Your task to perform on an android device: Open Youtube and go to "Your channel" Image 0: 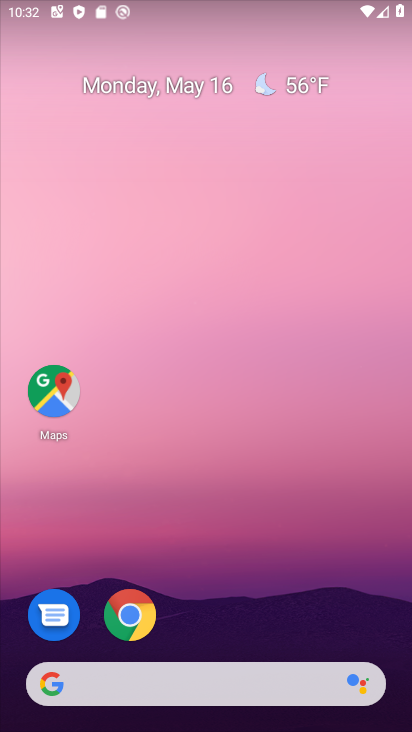
Step 0: drag from (172, 713) to (261, 136)
Your task to perform on an android device: Open Youtube and go to "Your channel" Image 1: 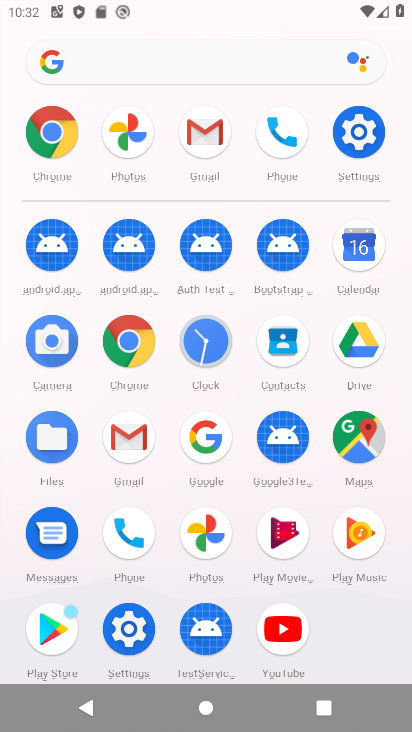
Step 1: click (262, 628)
Your task to perform on an android device: Open Youtube and go to "Your channel" Image 2: 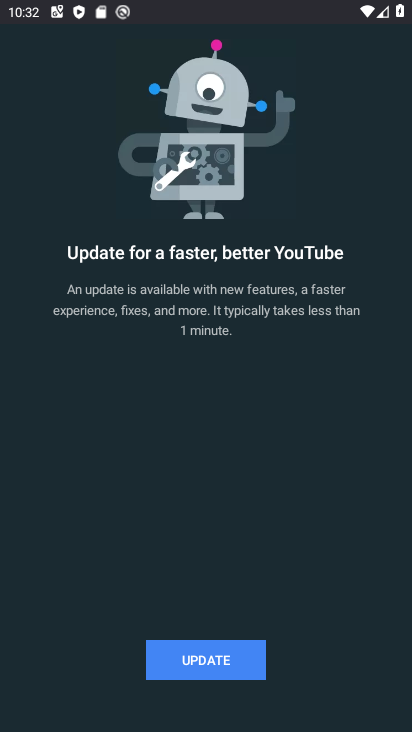
Step 2: click (220, 663)
Your task to perform on an android device: Open Youtube and go to "Your channel" Image 3: 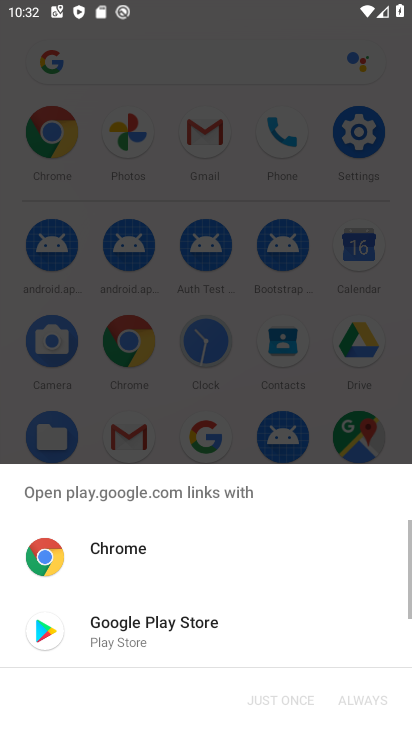
Step 3: click (160, 638)
Your task to perform on an android device: Open Youtube and go to "Your channel" Image 4: 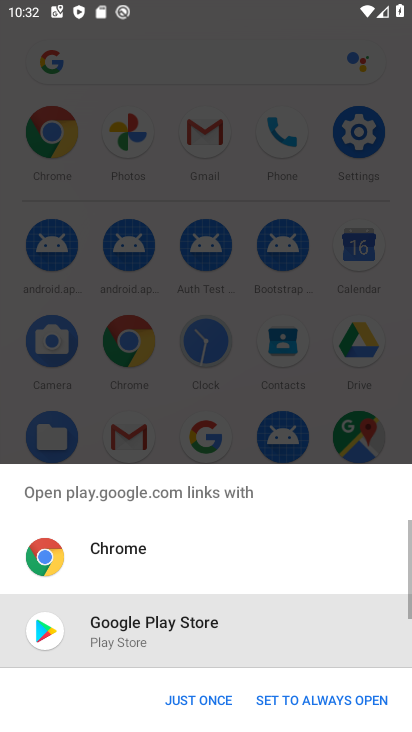
Step 4: click (213, 687)
Your task to perform on an android device: Open Youtube and go to "Your channel" Image 5: 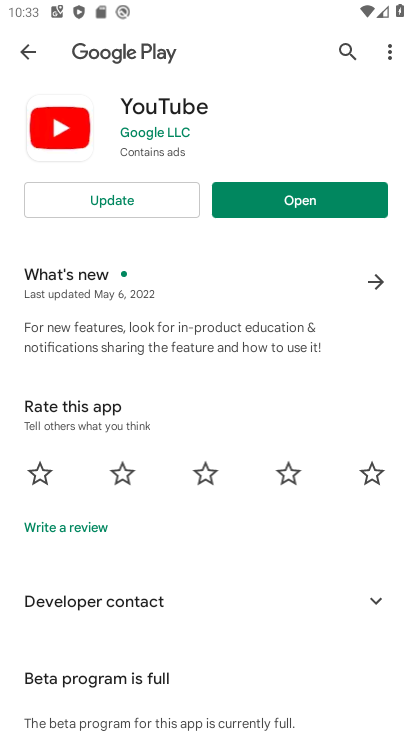
Step 5: click (316, 217)
Your task to perform on an android device: Open Youtube and go to "Your channel" Image 6: 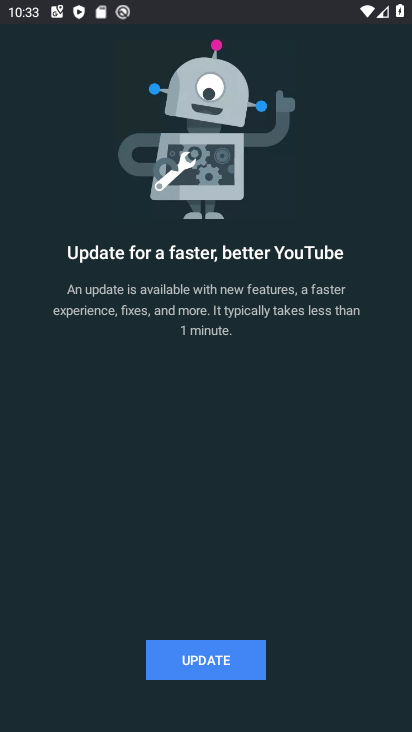
Step 6: click (202, 664)
Your task to perform on an android device: Open Youtube and go to "Your channel" Image 7: 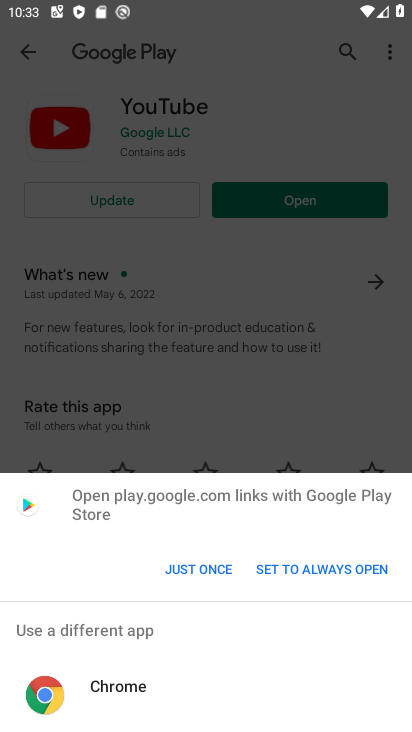
Step 7: click (197, 564)
Your task to perform on an android device: Open Youtube and go to "Your channel" Image 8: 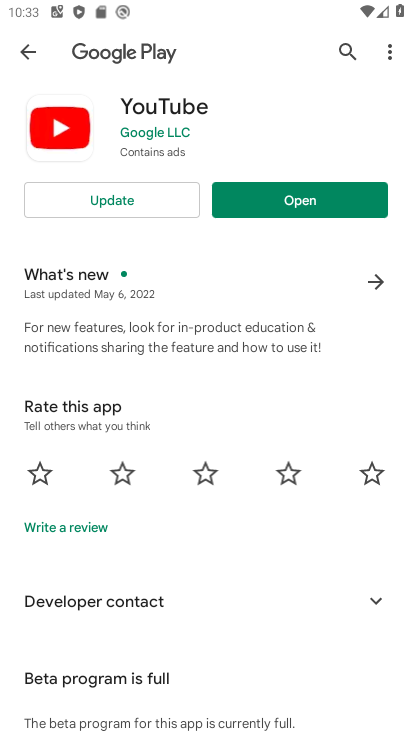
Step 8: click (109, 201)
Your task to perform on an android device: Open Youtube and go to "Your channel" Image 9: 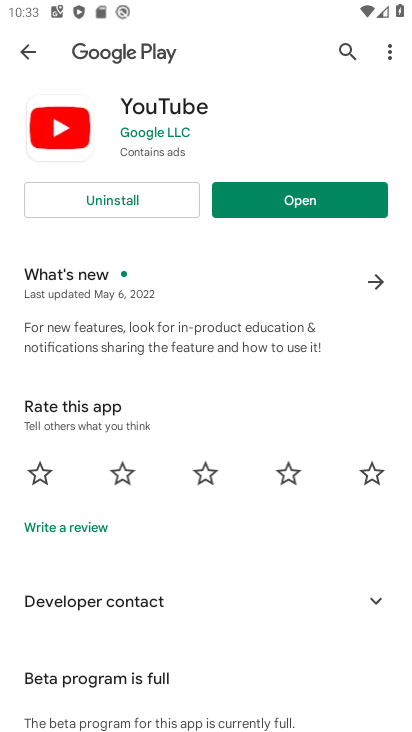
Step 9: click (320, 201)
Your task to perform on an android device: Open Youtube and go to "Your channel" Image 10: 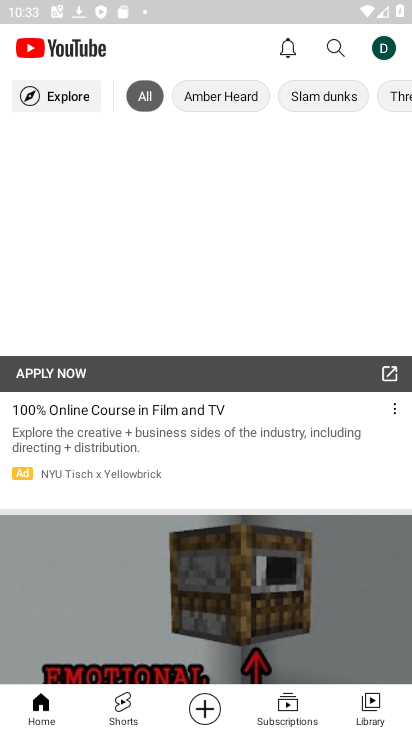
Step 10: click (385, 46)
Your task to perform on an android device: Open Youtube and go to "Your channel" Image 11: 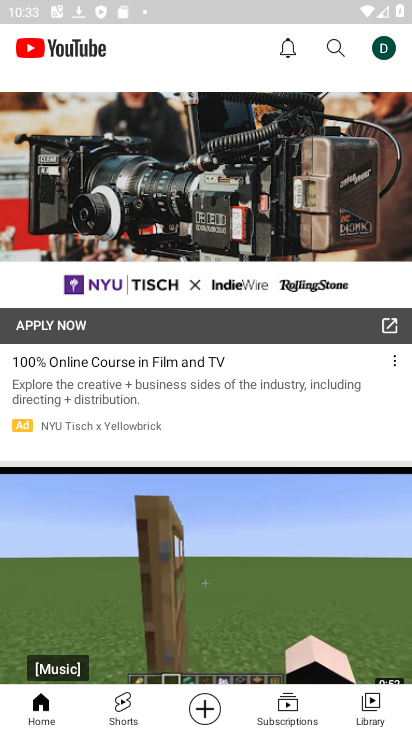
Step 11: click (379, 64)
Your task to perform on an android device: Open Youtube and go to "Your channel" Image 12: 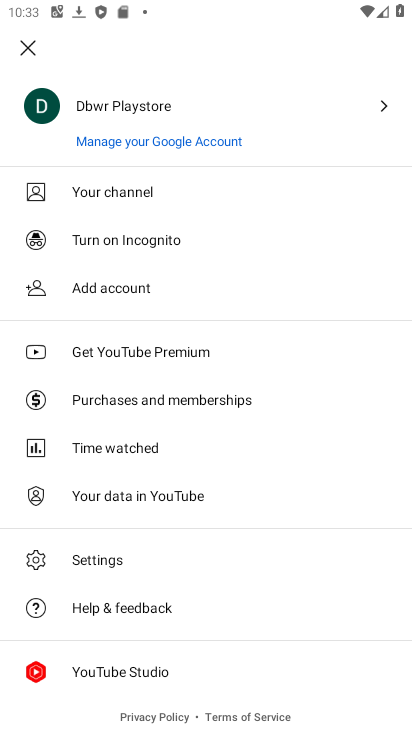
Step 12: click (132, 202)
Your task to perform on an android device: Open Youtube and go to "Your channel" Image 13: 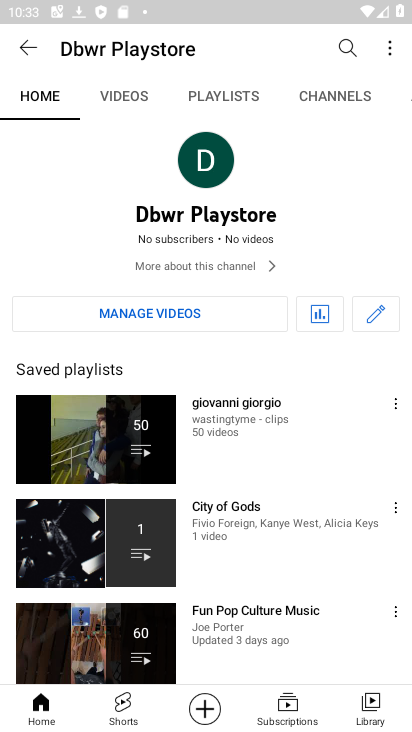
Step 13: task complete